Your task to perform on an android device: turn on improve location accuracy Image 0: 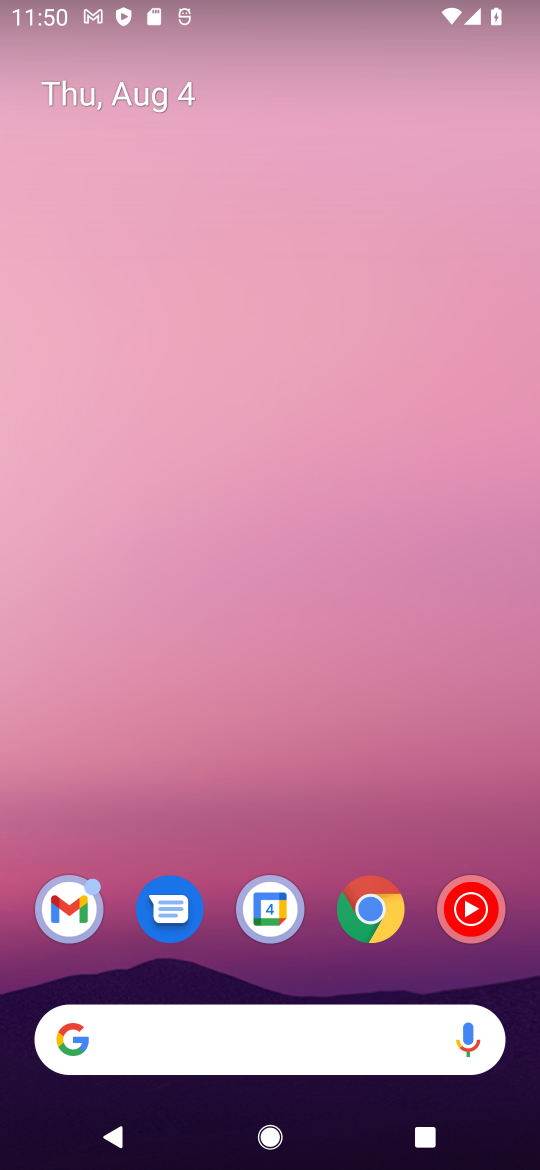
Step 0: drag from (230, 784) to (232, 23)
Your task to perform on an android device: turn on improve location accuracy Image 1: 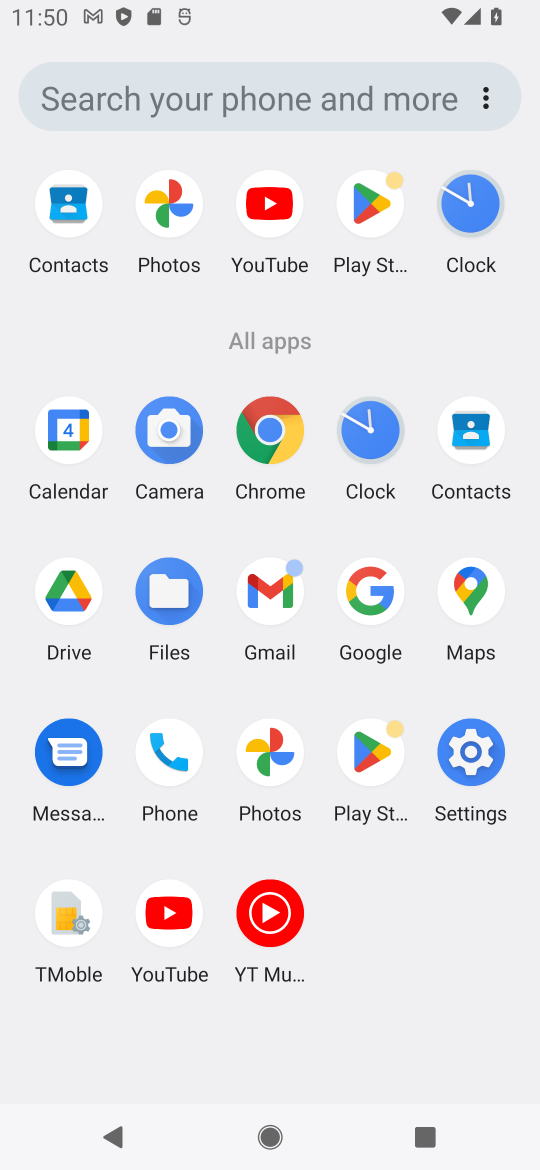
Step 1: click (462, 758)
Your task to perform on an android device: turn on improve location accuracy Image 2: 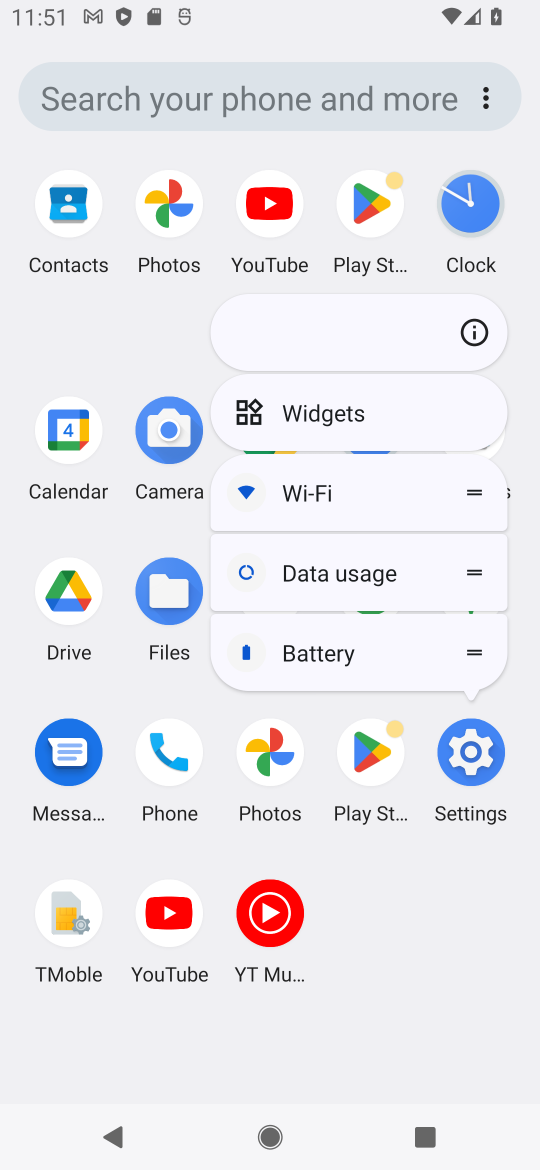
Step 2: click (466, 765)
Your task to perform on an android device: turn on improve location accuracy Image 3: 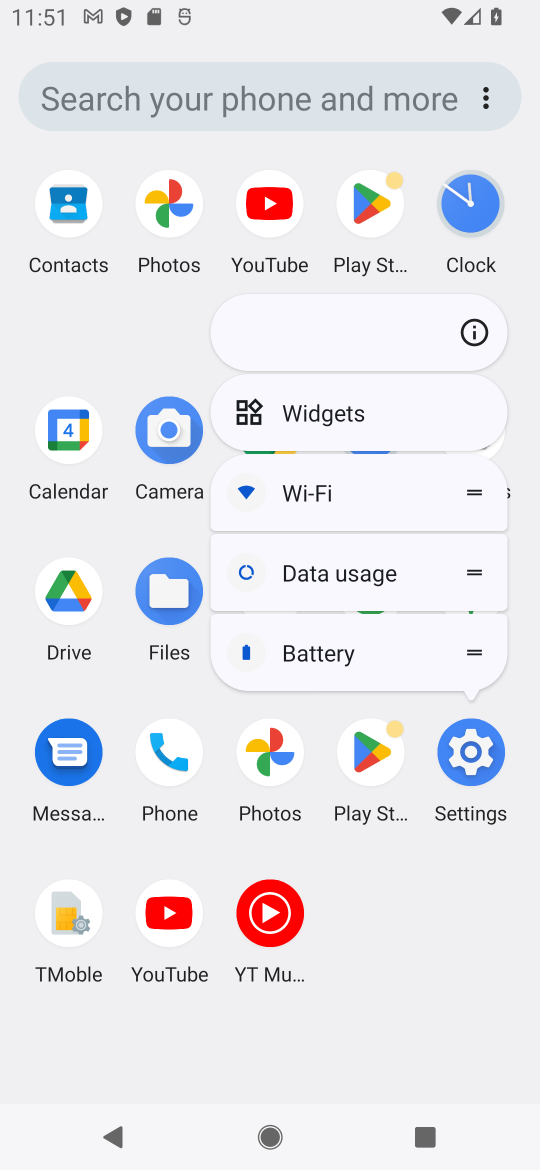
Step 3: click (471, 745)
Your task to perform on an android device: turn on improve location accuracy Image 4: 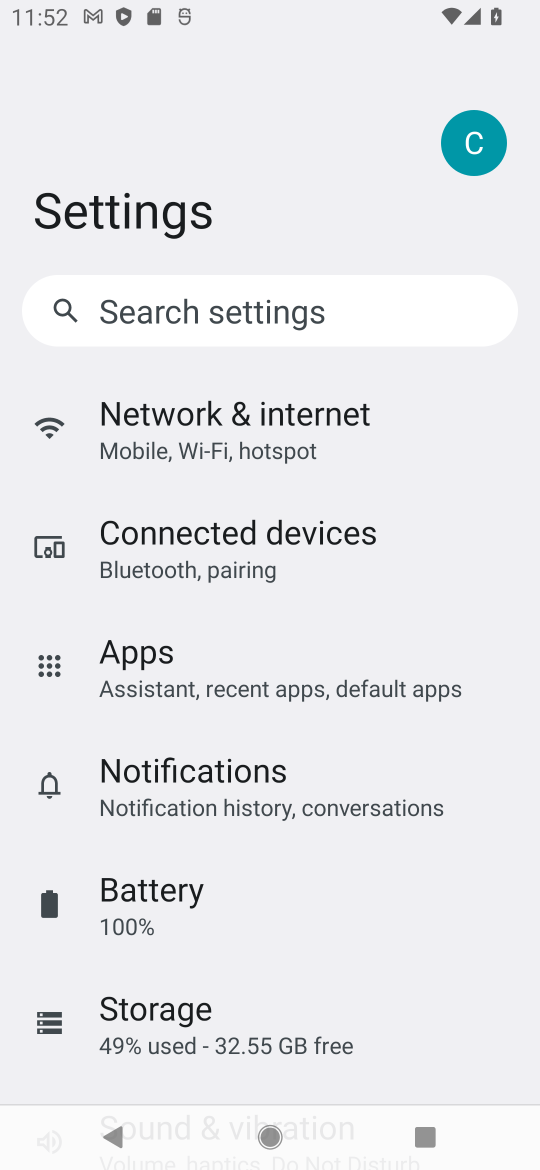
Step 4: drag from (234, 964) to (470, 24)
Your task to perform on an android device: turn on improve location accuracy Image 5: 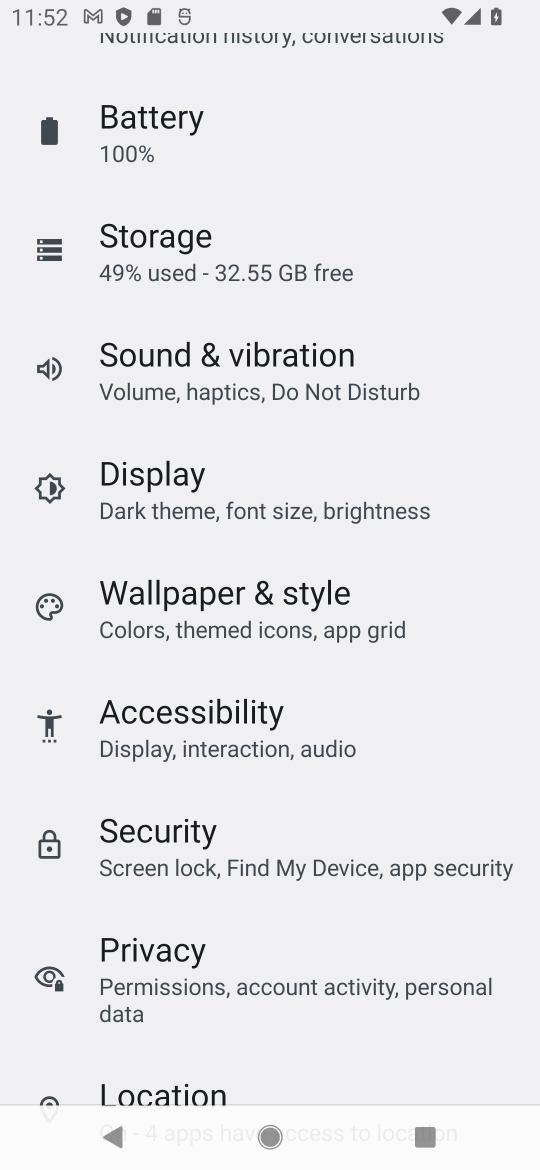
Step 5: click (213, 1085)
Your task to perform on an android device: turn on improve location accuracy Image 6: 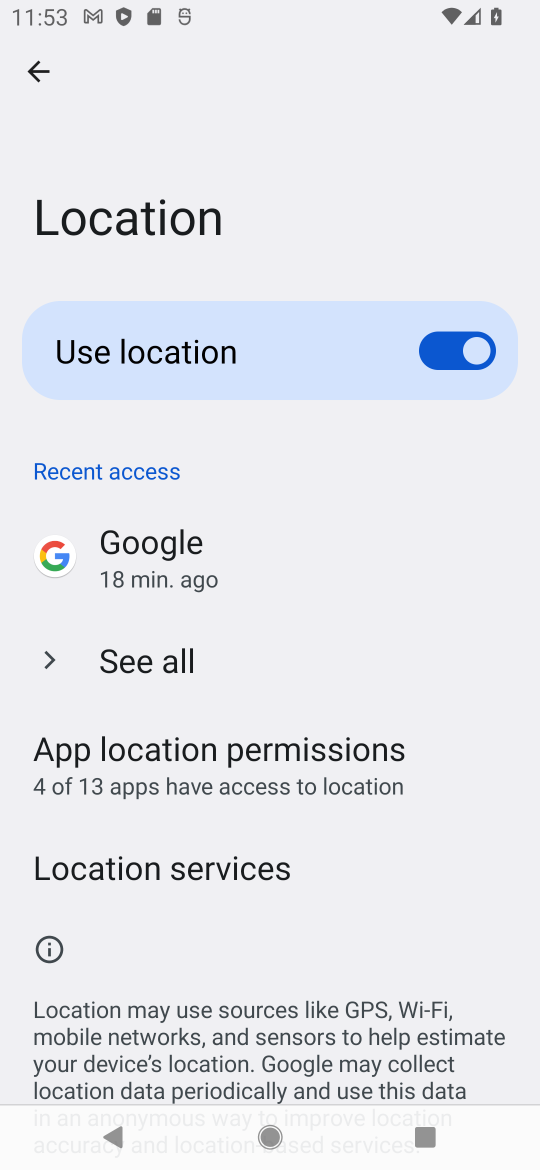
Step 6: click (212, 872)
Your task to perform on an android device: turn on improve location accuracy Image 7: 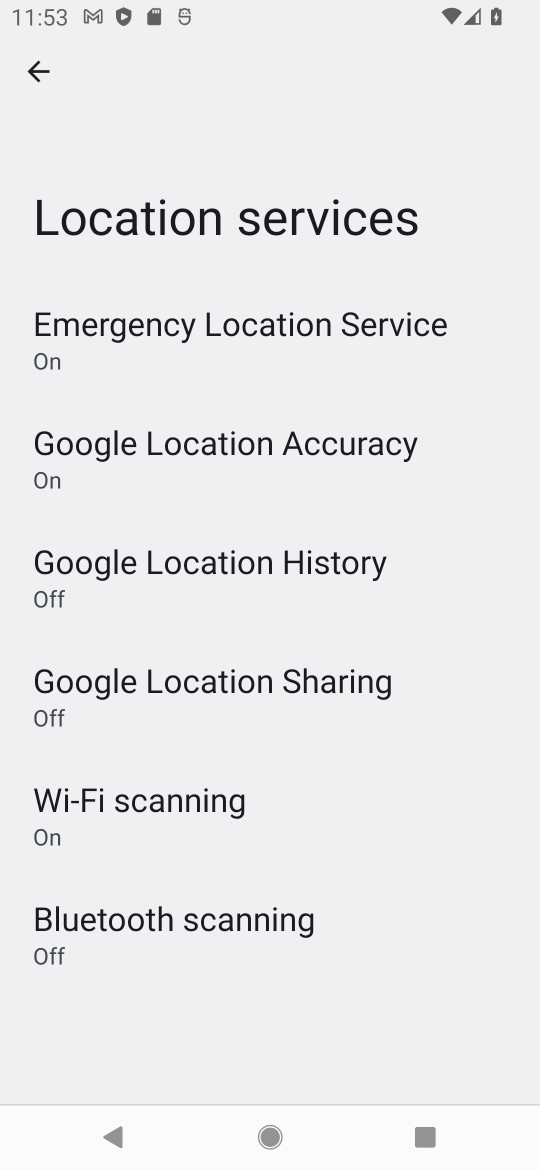
Step 7: click (334, 432)
Your task to perform on an android device: turn on improve location accuracy Image 8: 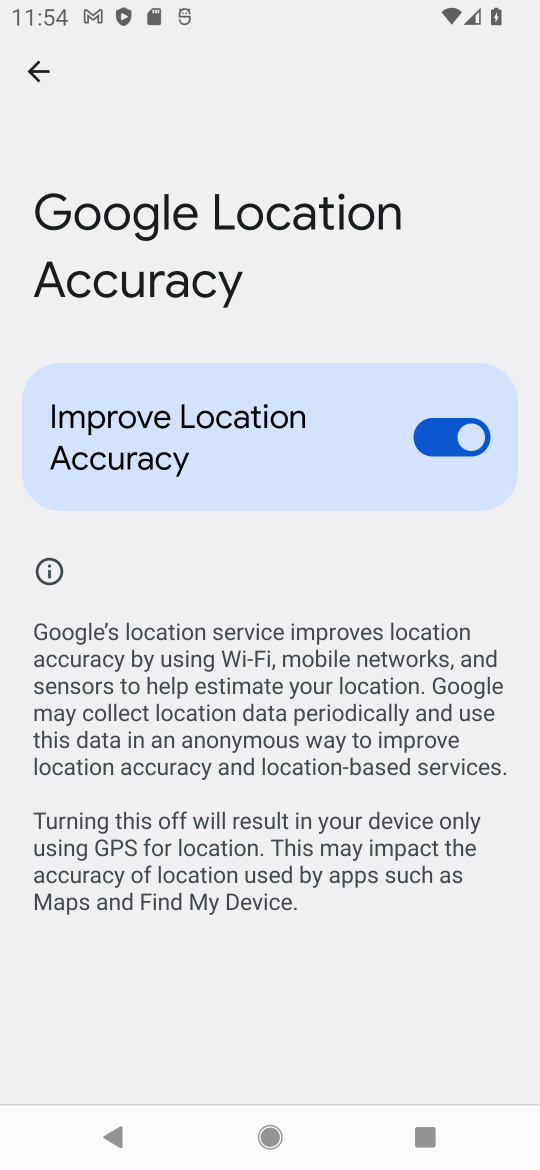
Step 8: task complete